Your task to perform on an android device: Open privacy settings Image 0: 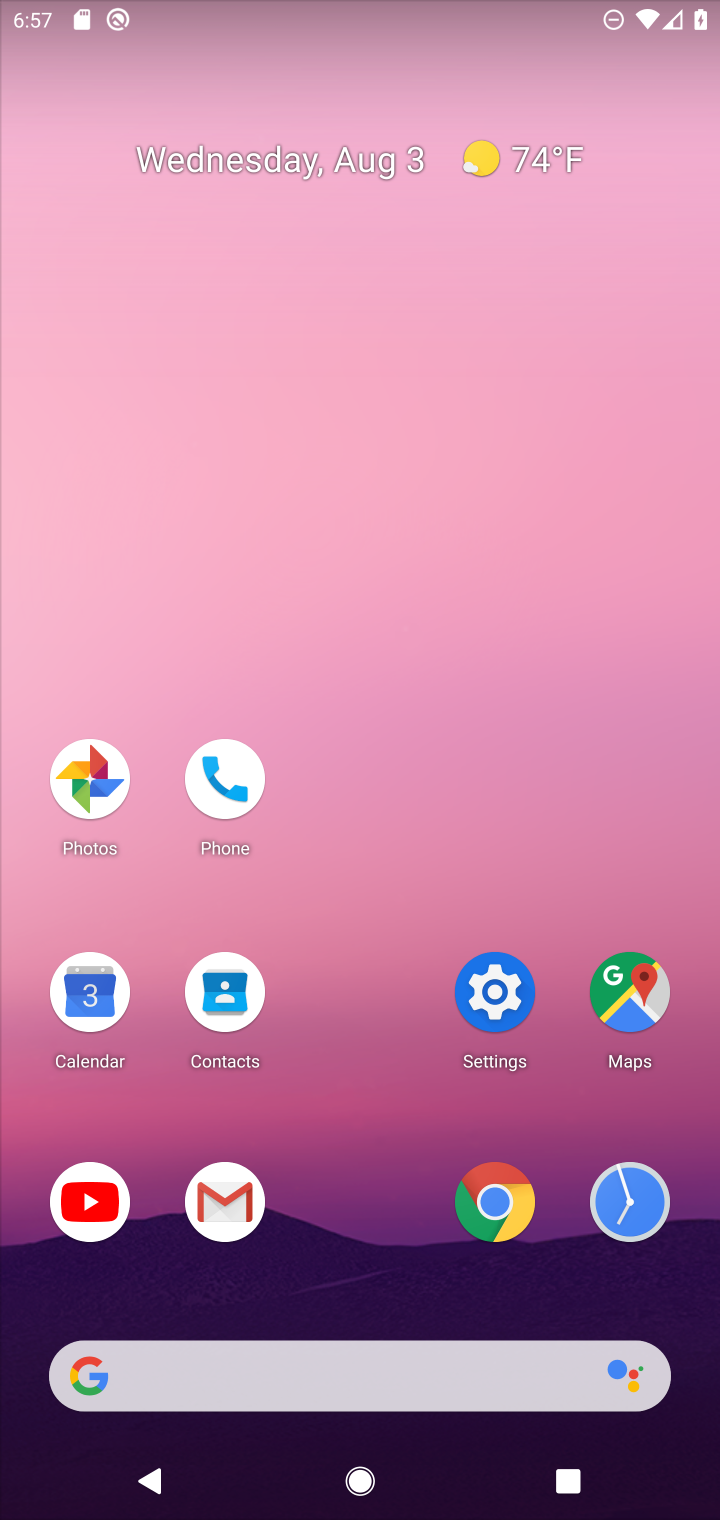
Step 0: click (500, 992)
Your task to perform on an android device: Open privacy settings Image 1: 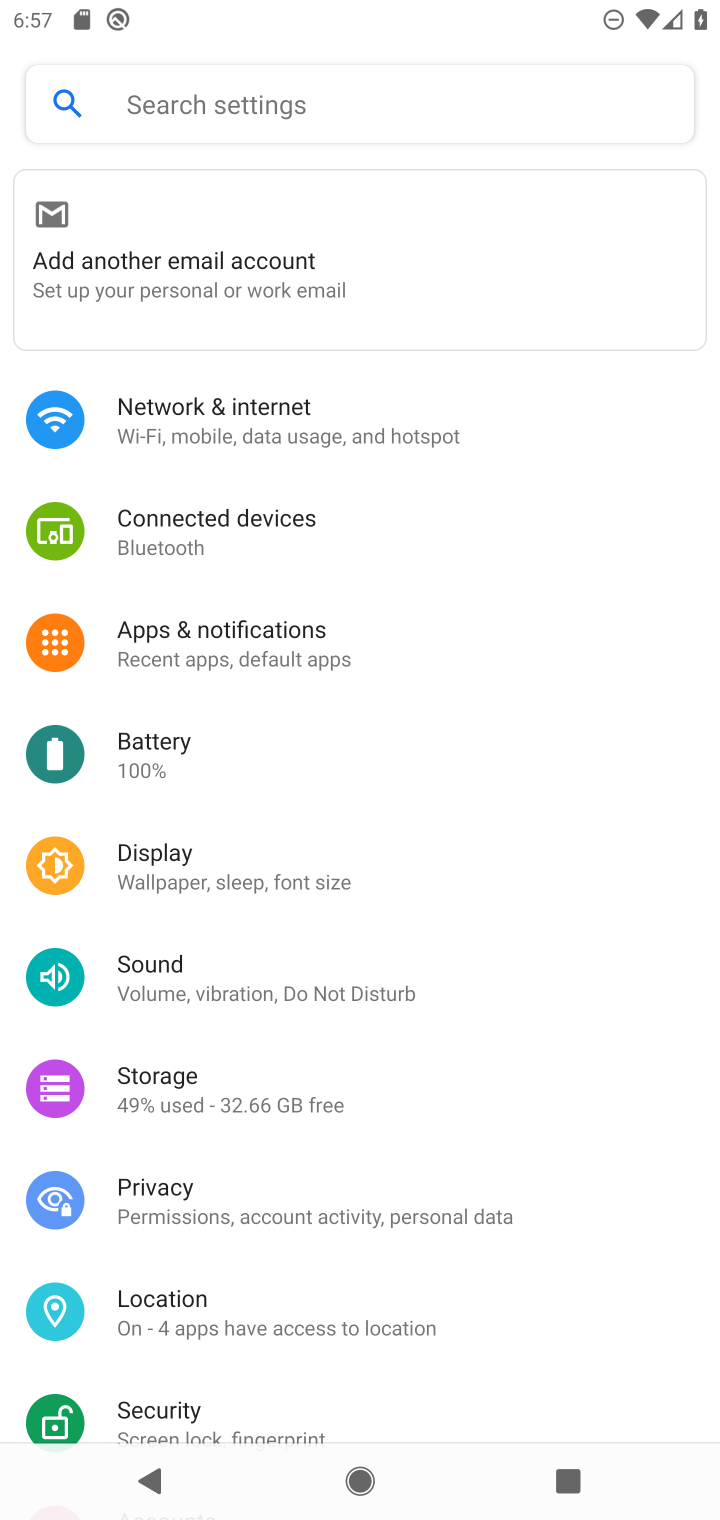
Step 1: click (147, 1197)
Your task to perform on an android device: Open privacy settings Image 2: 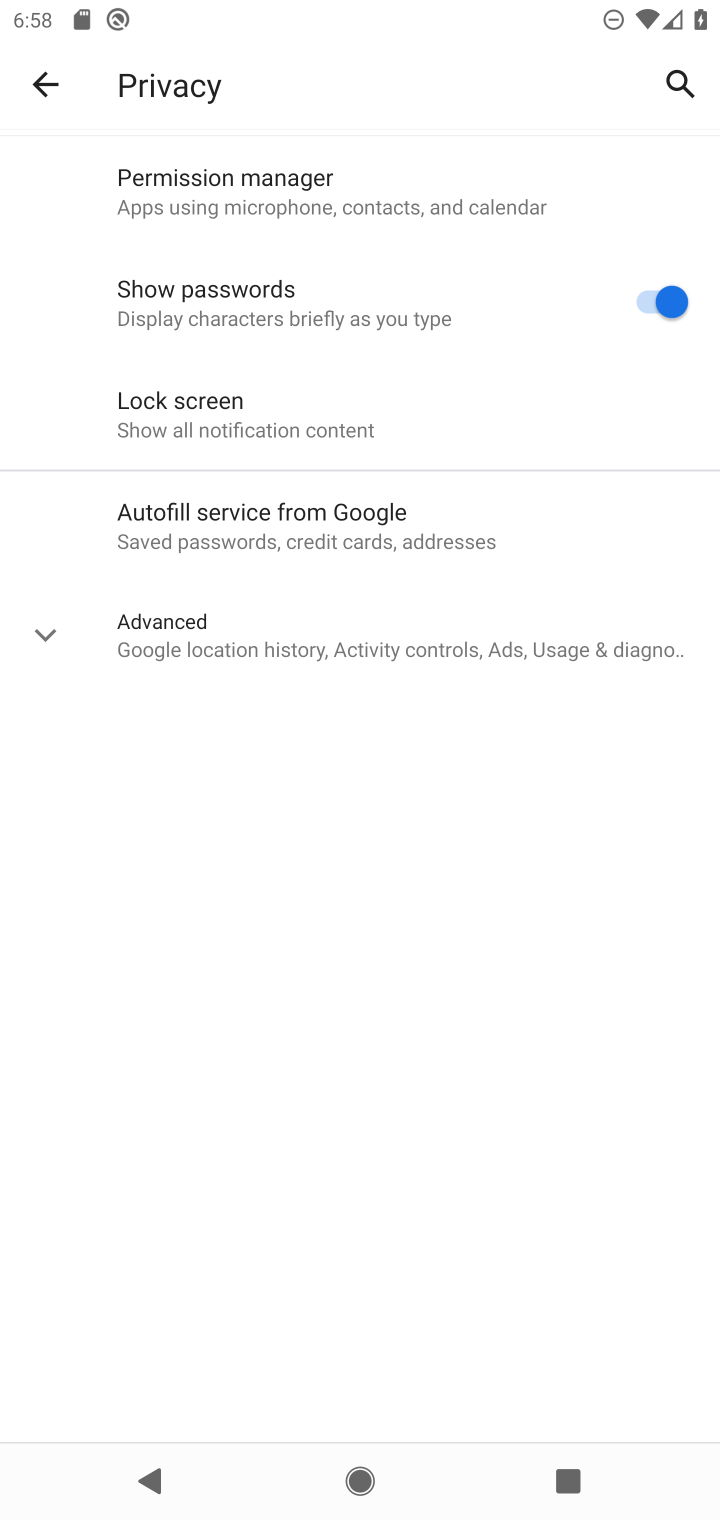
Step 2: task complete